Your task to perform on an android device: Open accessibility settings Image 0: 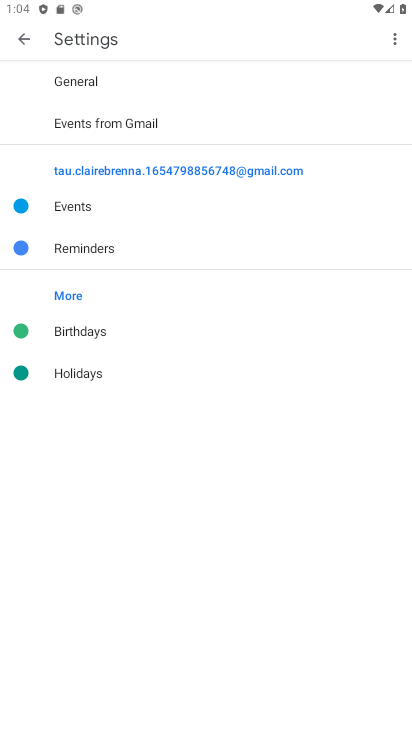
Step 0: press home button
Your task to perform on an android device: Open accessibility settings Image 1: 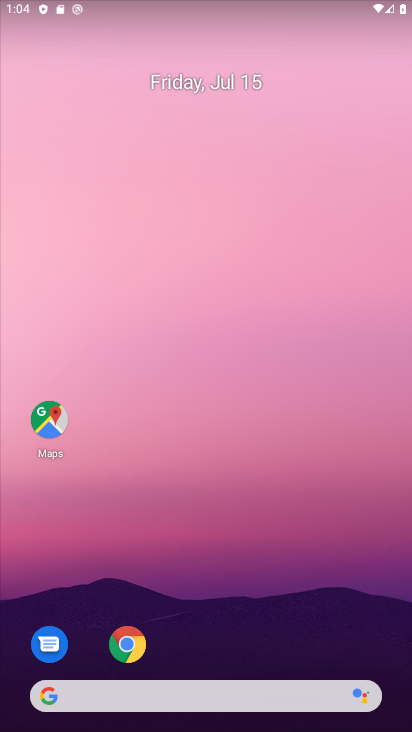
Step 1: drag from (400, 645) to (309, 105)
Your task to perform on an android device: Open accessibility settings Image 2: 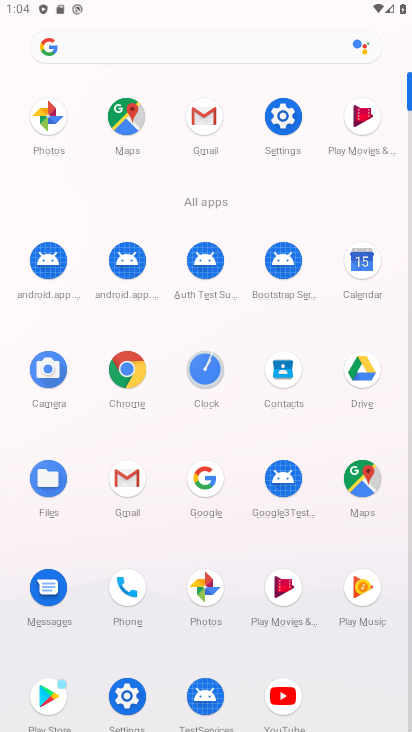
Step 2: click (275, 115)
Your task to perform on an android device: Open accessibility settings Image 3: 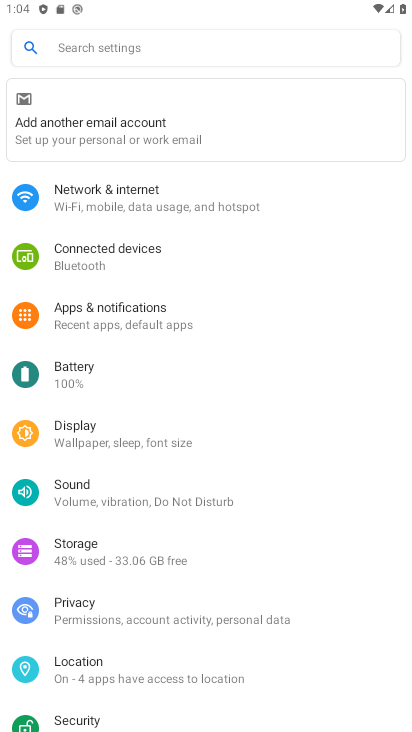
Step 3: drag from (308, 618) to (280, 319)
Your task to perform on an android device: Open accessibility settings Image 4: 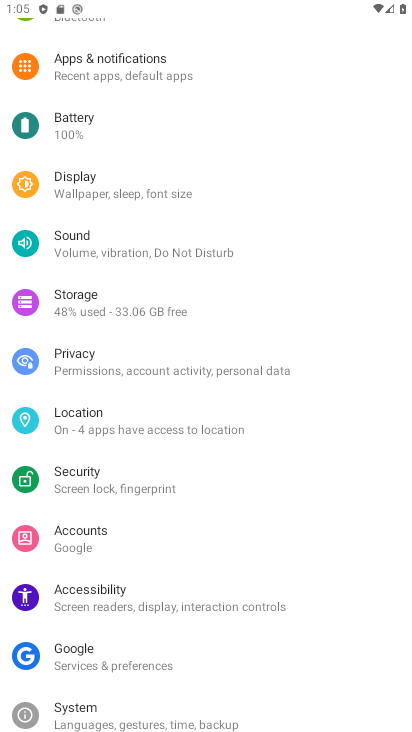
Step 4: click (96, 599)
Your task to perform on an android device: Open accessibility settings Image 5: 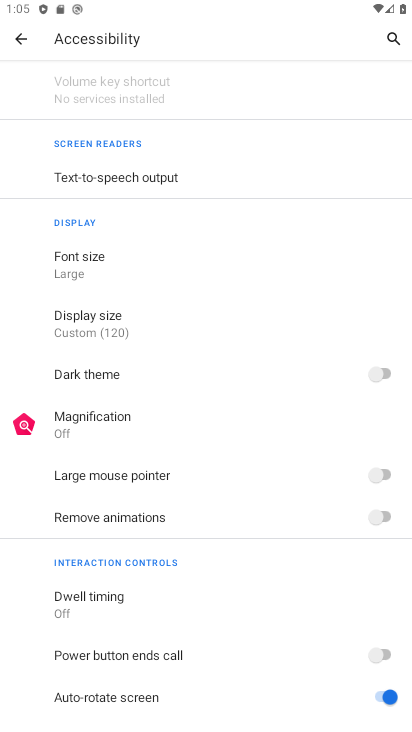
Step 5: task complete